Your task to perform on an android device: change alarm snooze length Image 0: 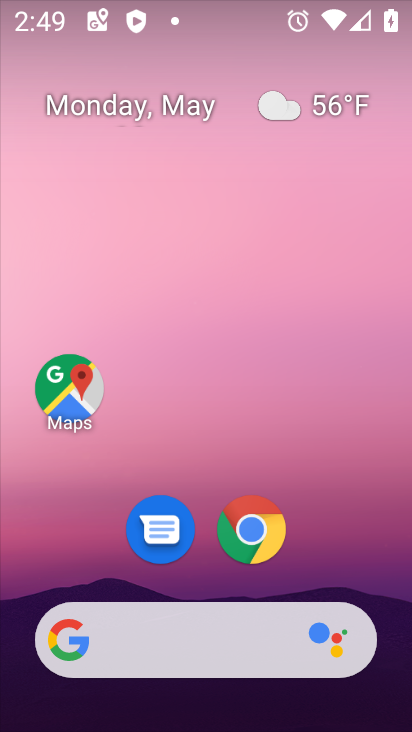
Step 0: drag from (328, 571) to (313, 72)
Your task to perform on an android device: change alarm snooze length Image 1: 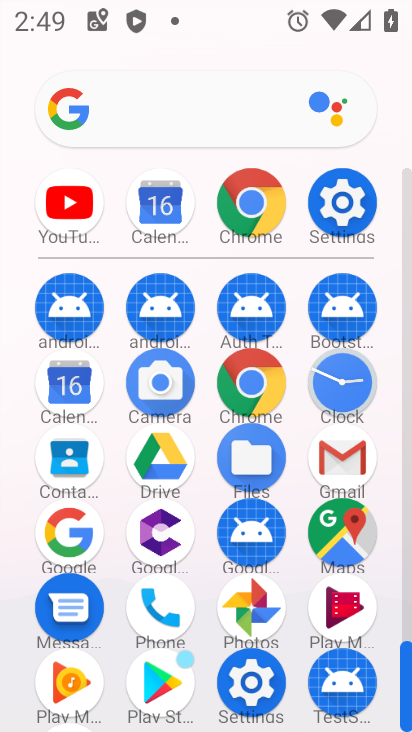
Step 1: click (330, 371)
Your task to perform on an android device: change alarm snooze length Image 2: 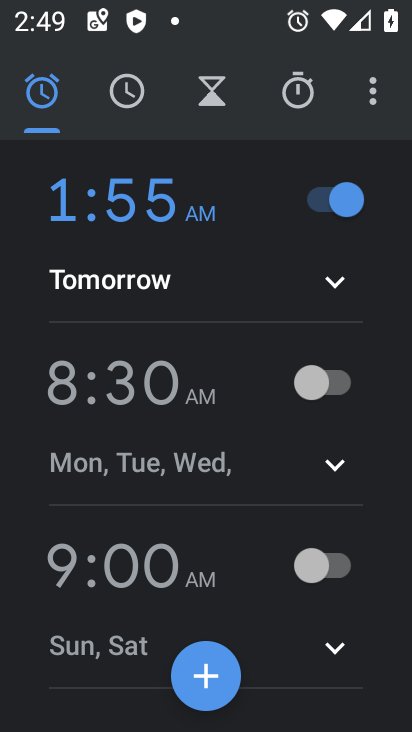
Step 2: click (369, 92)
Your task to perform on an android device: change alarm snooze length Image 3: 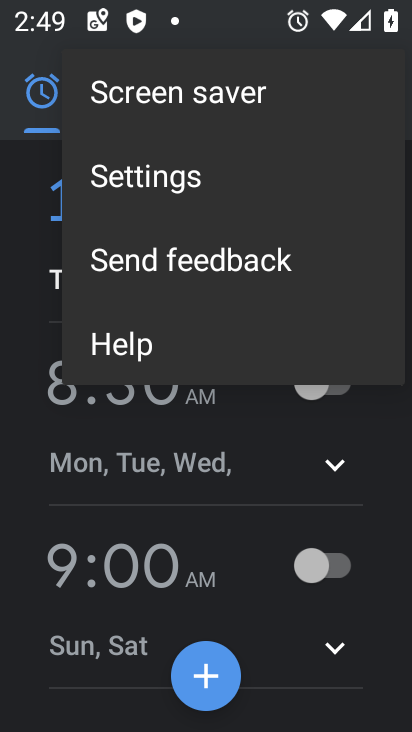
Step 3: click (154, 189)
Your task to perform on an android device: change alarm snooze length Image 4: 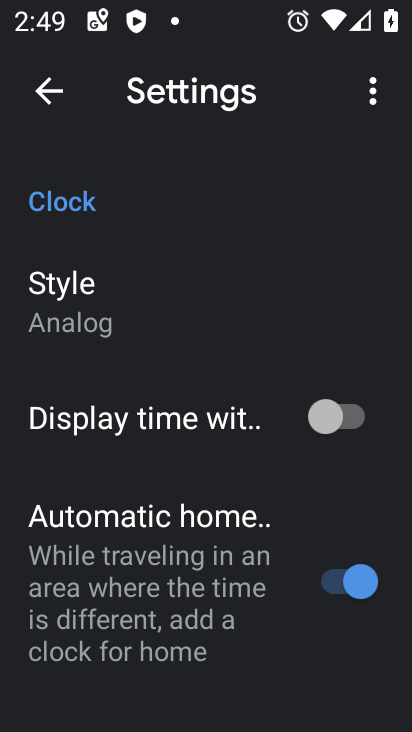
Step 4: drag from (179, 610) to (158, 348)
Your task to perform on an android device: change alarm snooze length Image 5: 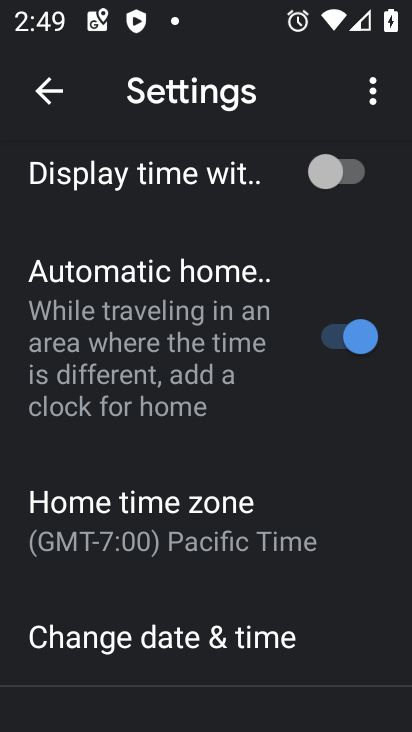
Step 5: drag from (240, 633) to (234, 369)
Your task to perform on an android device: change alarm snooze length Image 6: 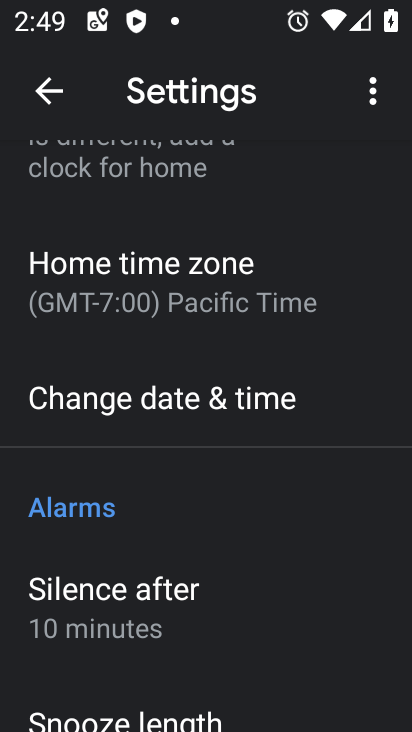
Step 6: drag from (211, 635) to (228, 394)
Your task to perform on an android device: change alarm snooze length Image 7: 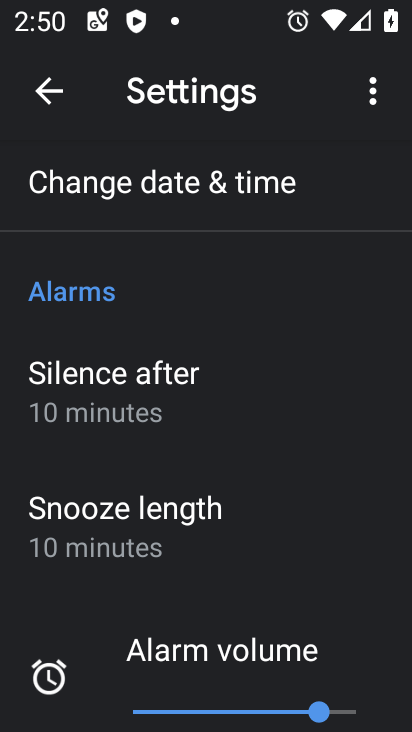
Step 7: click (197, 517)
Your task to perform on an android device: change alarm snooze length Image 8: 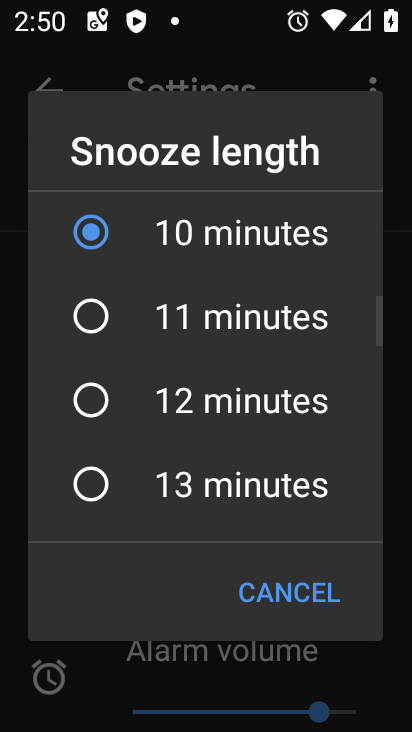
Step 8: drag from (198, 286) to (289, 725)
Your task to perform on an android device: change alarm snooze length Image 9: 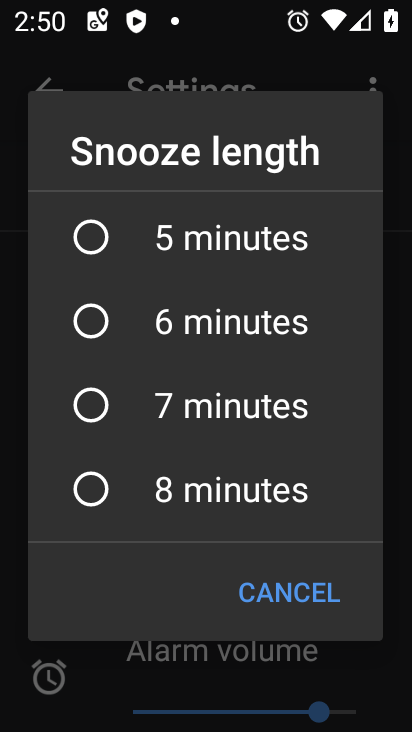
Step 9: click (169, 248)
Your task to perform on an android device: change alarm snooze length Image 10: 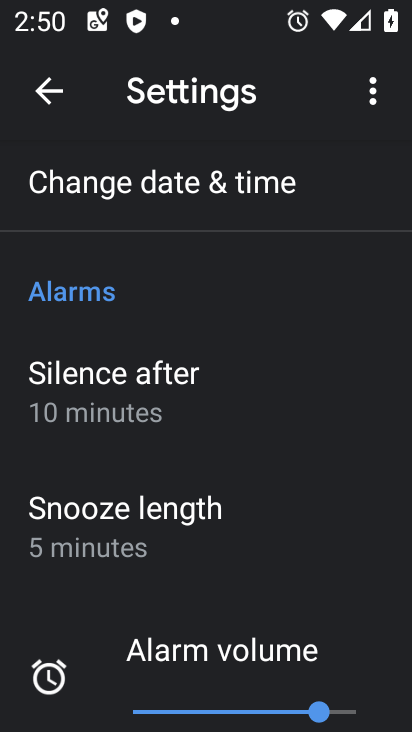
Step 10: task complete